Your task to perform on an android device: change notifications settings Image 0: 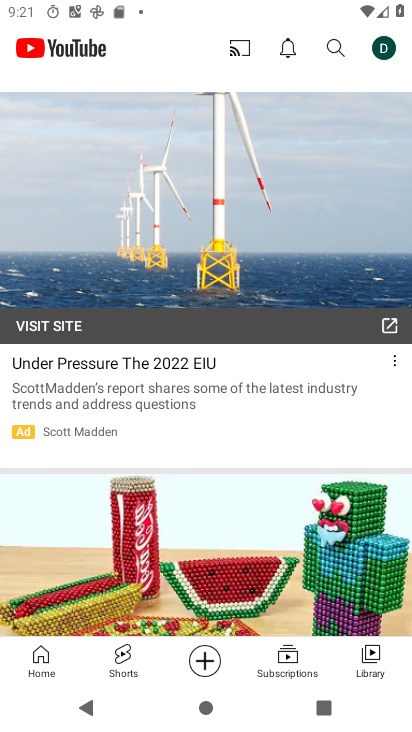
Step 0: press home button
Your task to perform on an android device: change notifications settings Image 1: 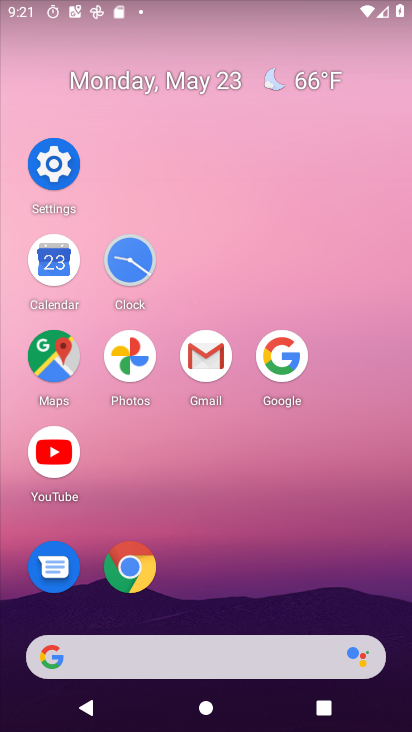
Step 1: click (52, 173)
Your task to perform on an android device: change notifications settings Image 2: 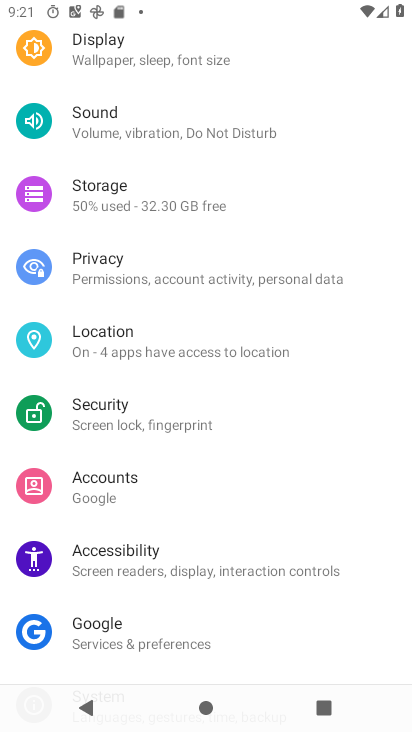
Step 2: drag from (274, 281) to (238, 642)
Your task to perform on an android device: change notifications settings Image 3: 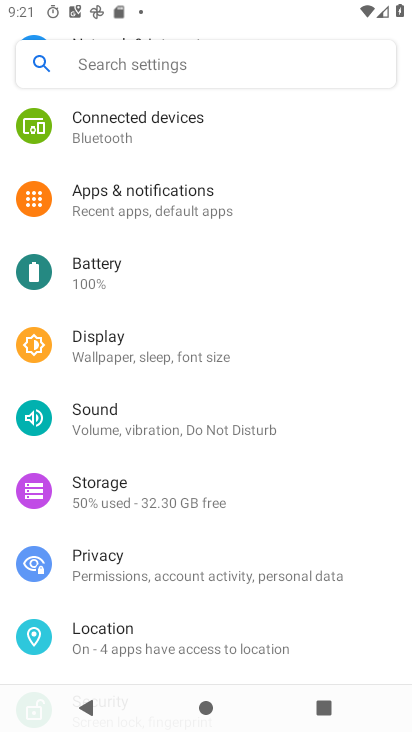
Step 3: click (167, 214)
Your task to perform on an android device: change notifications settings Image 4: 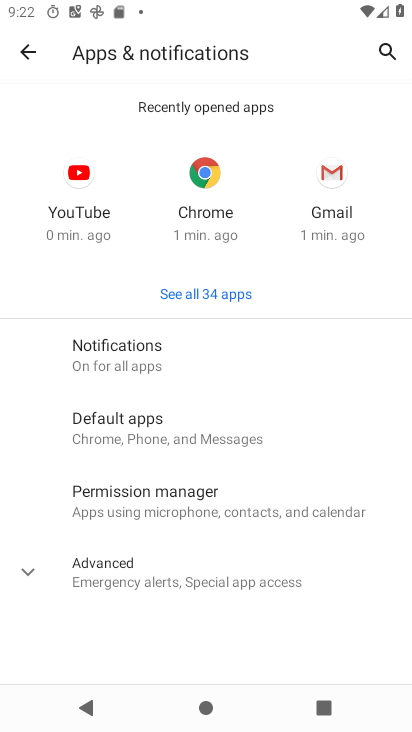
Step 4: click (185, 353)
Your task to perform on an android device: change notifications settings Image 5: 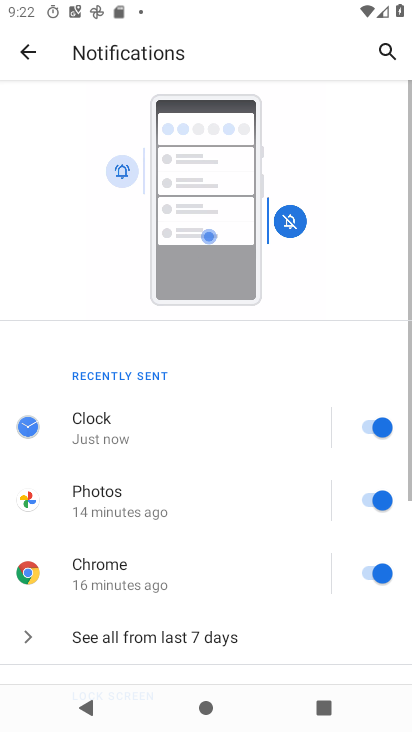
Step 5: drag from (154, 595) to (197, 177)
Your task to perform on an android device: change notifications settings Image 6: 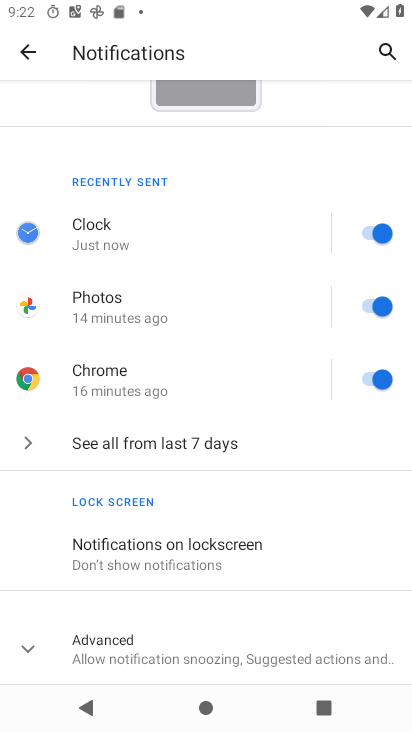
Step 6: click (158, 646)
Your task to perform on an android device: change notifications settings Image 7: 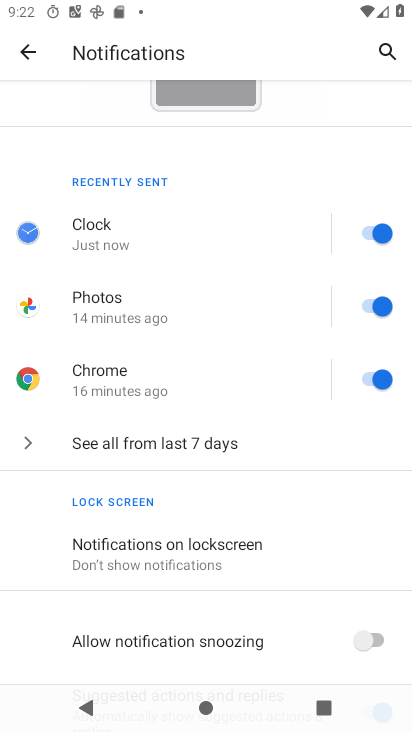
Step 7: drag from (205, 581) to (243, 200)
Your task to perform on an android device: change notifications settings Image 8: 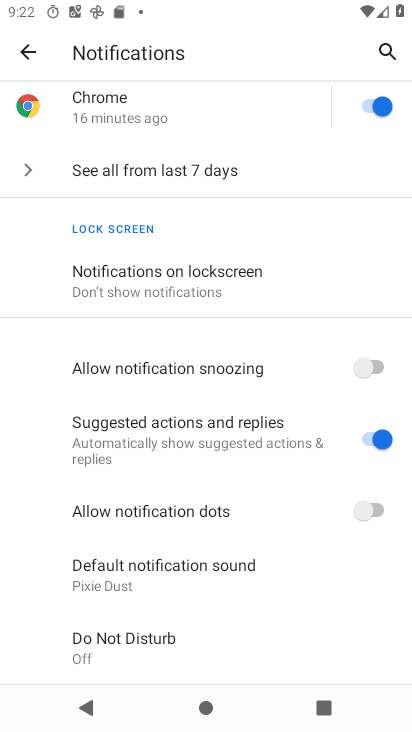
Step 8: click (350, 363)
Your task to perform on an android device: change notifications settings Image 9: 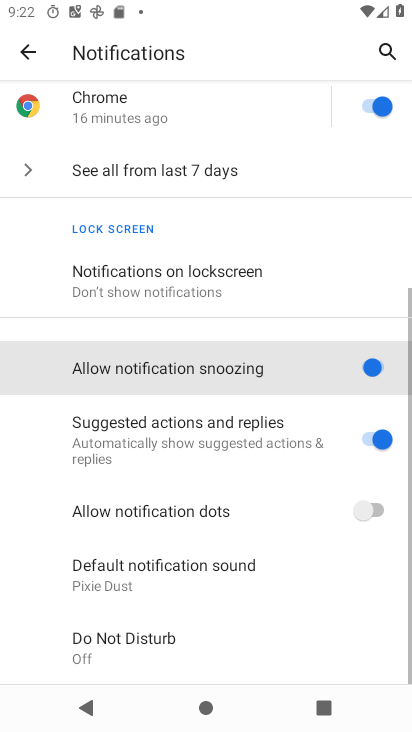
Step 9: click (390, 438)
Your task to perform on an android device: change notifications settings Image 10: 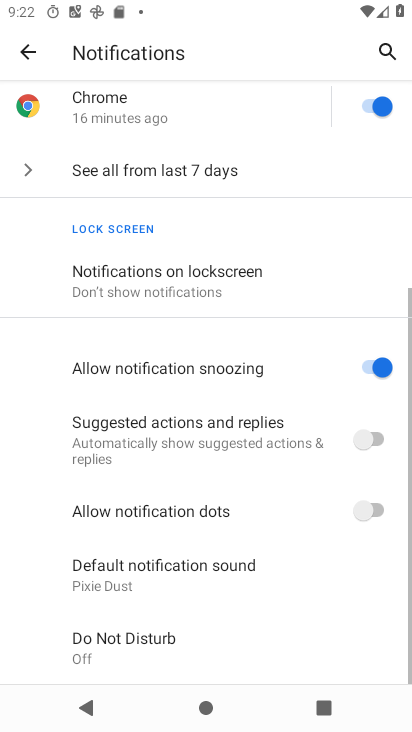
Step 10: click (357, 505)
Your task to perform on an android device: change notifications settings Image 11: 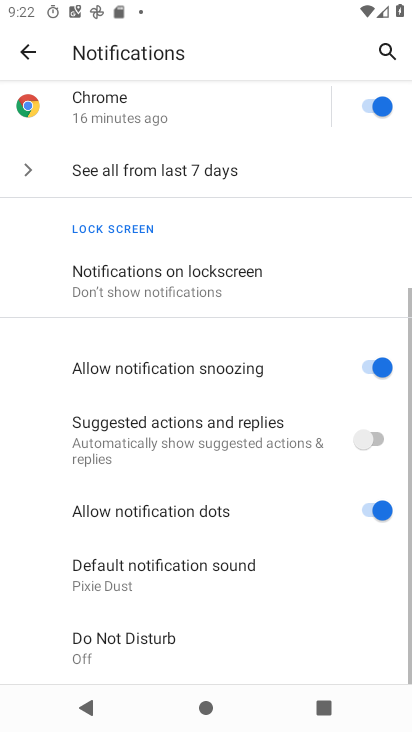
Step 11: task complete